Your task to perform on an android device: change text size in settings app Image 0: 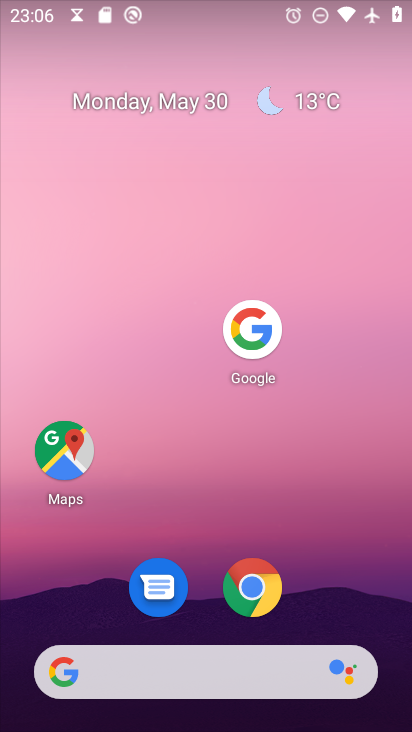
Step 0: press home button
Your task to perform on an android device: change text size in settings app Image 1: 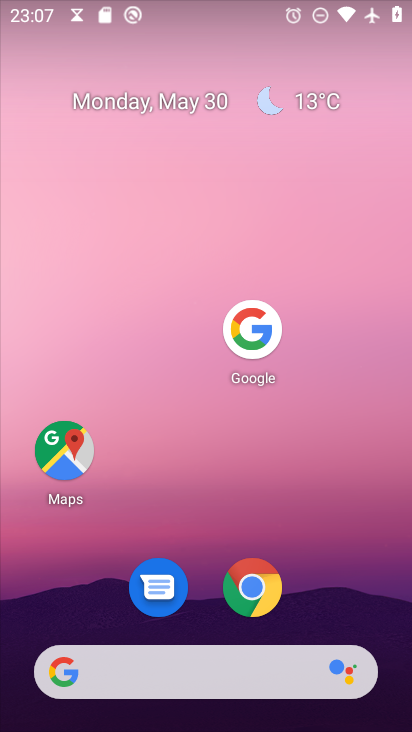
Step 1: drag from (228, 672) to (356, 46)
Your task to perform on an android device: change text size in settings app Image 2: 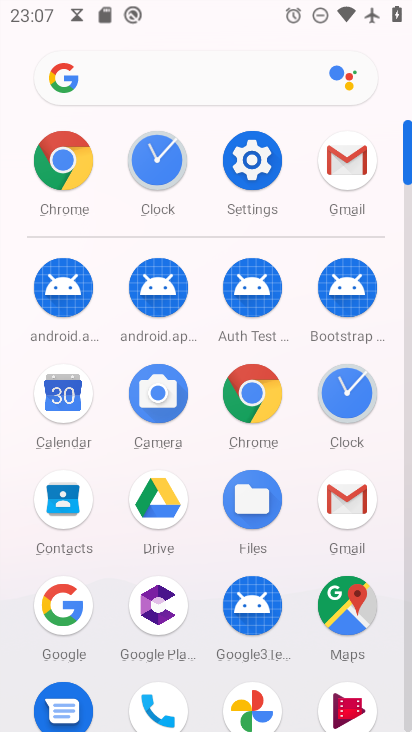
Step 2: click (260, 160)
Your task to perform on an android device: change text size in settings app Image 3: 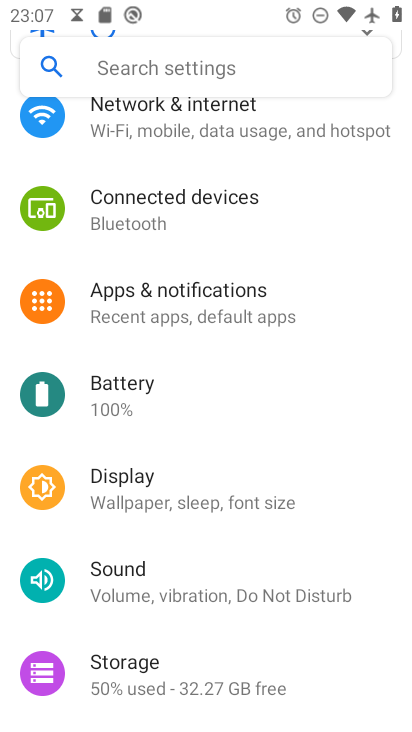
Step 3: click (273, 500)
Your task to perform on an android device: change text size in settings app Image 4: 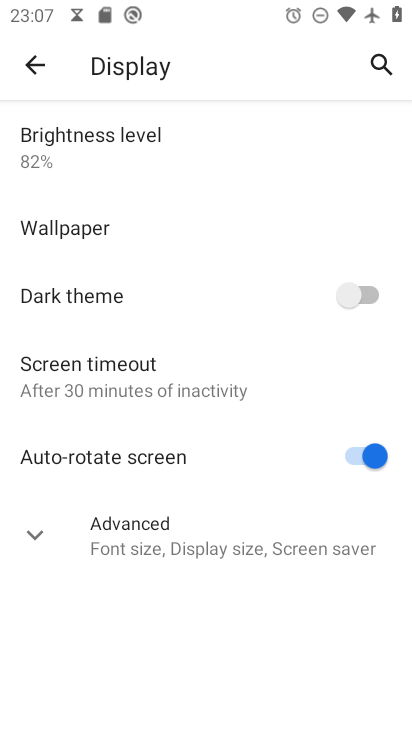
Step 4: click (151, 542)
Your task to perform on an android device: change text size in settings app Image 5: 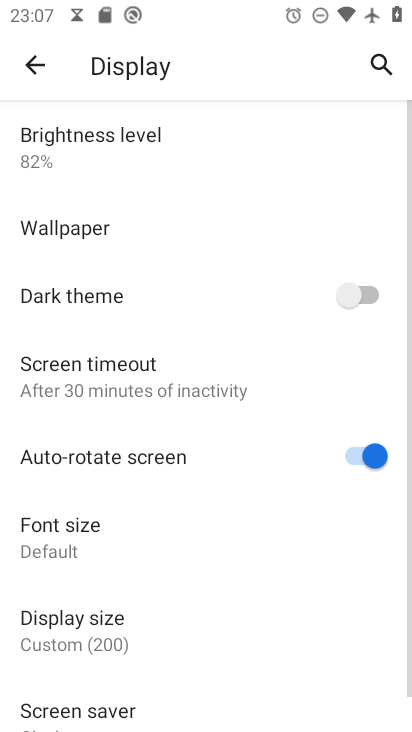
Step 5: click (46, 542)
Your task to perform on an android device: change text size in settings app Image 6: 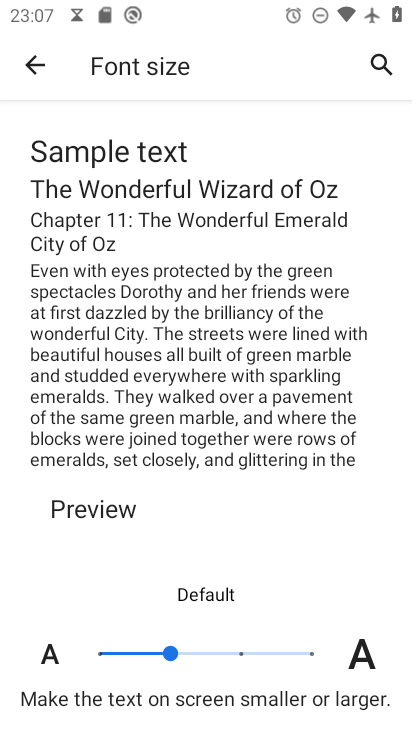
Step 6: click (100, 650)
Your task to perform on an android device: change text size in settings app Image 7: 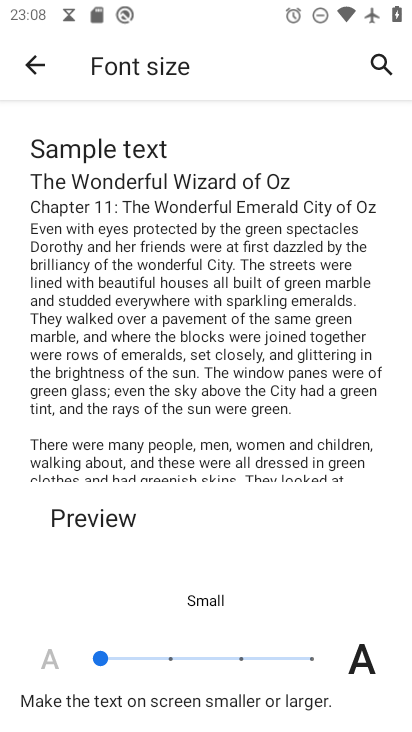
Step 7: task complete